Your task to perform on an android device: set the timer Image 0: 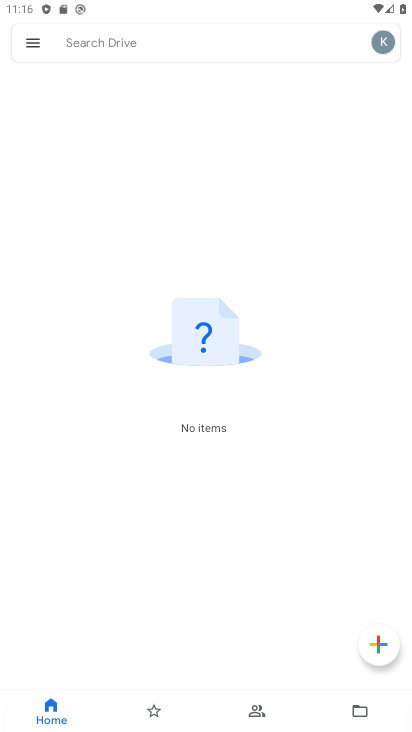
Step 0: press home button
Your task to perform on an android device: set the timer Image 1: 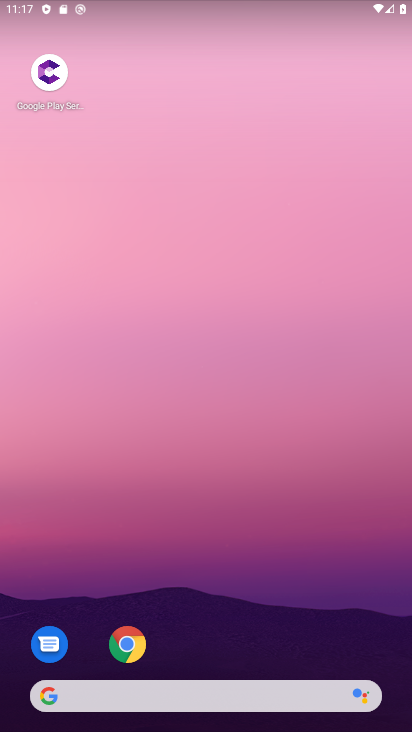
Step 1: drag from (220, 640) to (253, 176)
Your task to perform on an android device: set the timer Image 2: 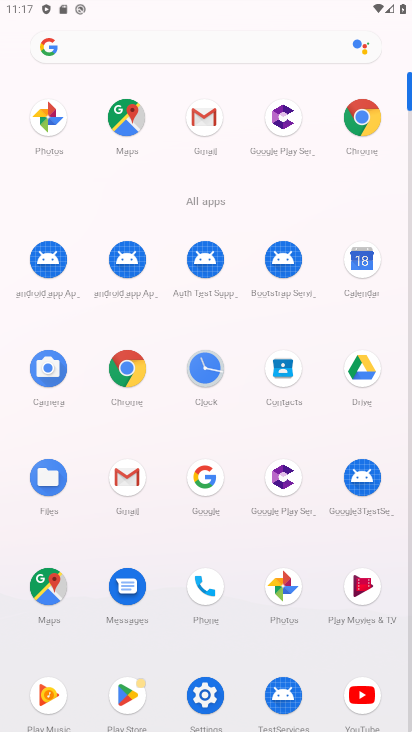
Step 2: click (212, 355)
Your task to perform on an android device: set the timer Image 3: 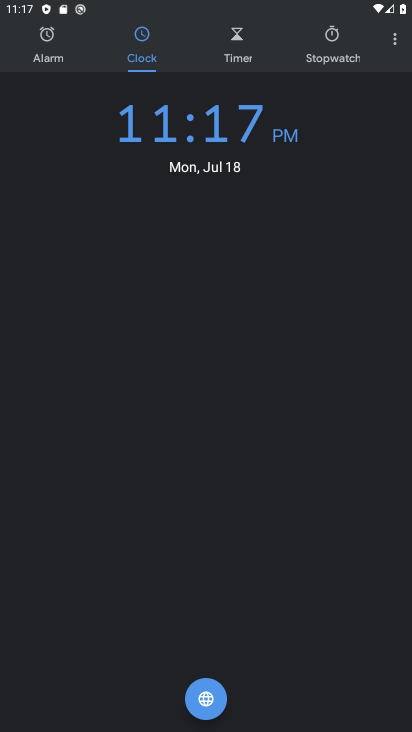
Step 3: click (236, 51)
Your task to perform on an android device: set the timer Image 4: 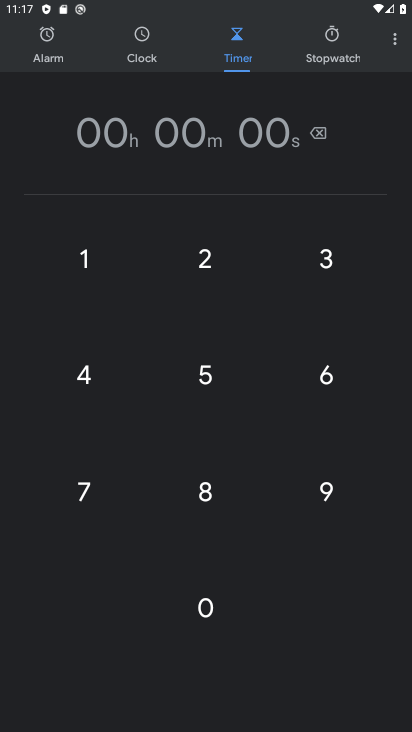
Step 4: click (235, 268)
Your task to perform on an android device: set the timer Image 5: 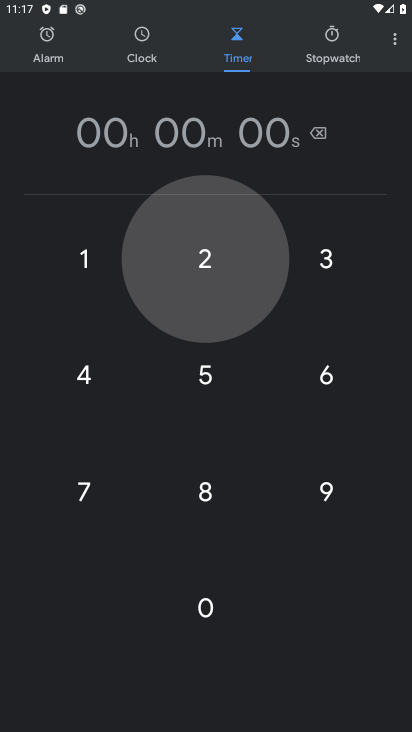
Step 5: click (220, 381)
Your task to perform on an android device: set the timer Image 6: 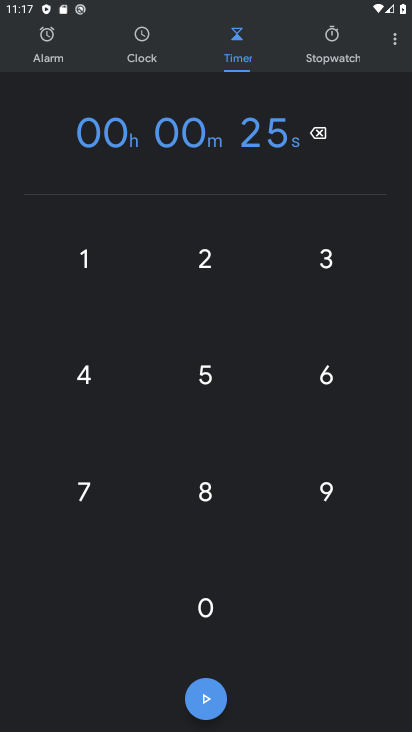
Step 6: click (203, 260)
Your task to perform on an android device: set the timer Image 7: 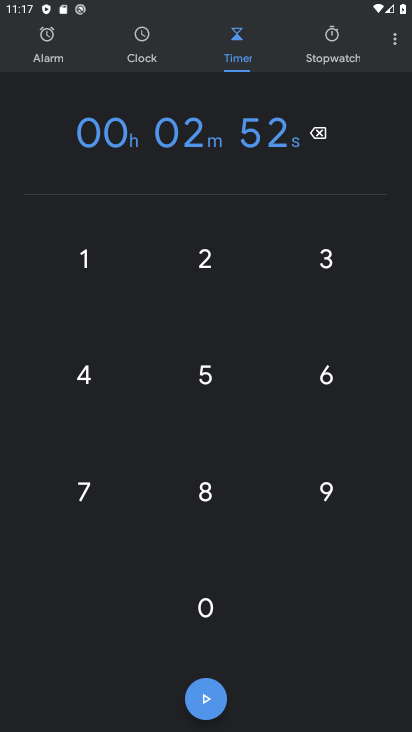
Step 7: click (214, 348)
Your task to perform on an android device: set the timer Image 8: 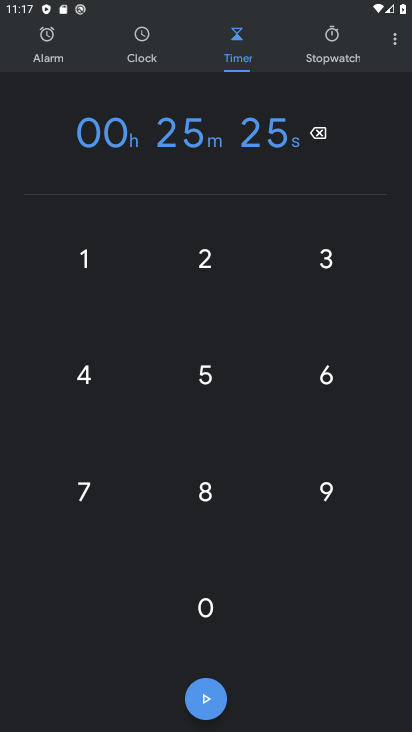
Step 8: click (190, 699)
Your task to perform on an android device: set the timer Image 9: 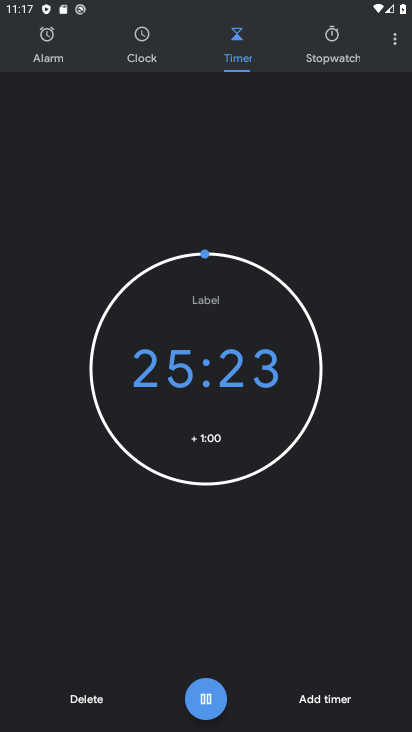
Step 9: task complete